Your task to perform on an android device: check data usage Image 0: 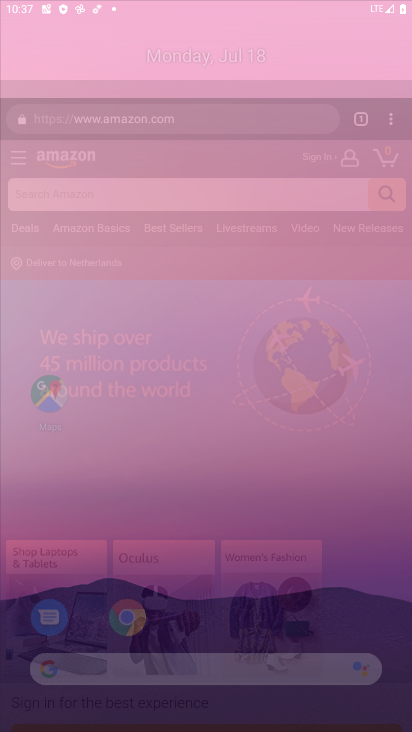
Step 0: click (349, 219)
Your task to perform on an android device: check data usage Image 1: 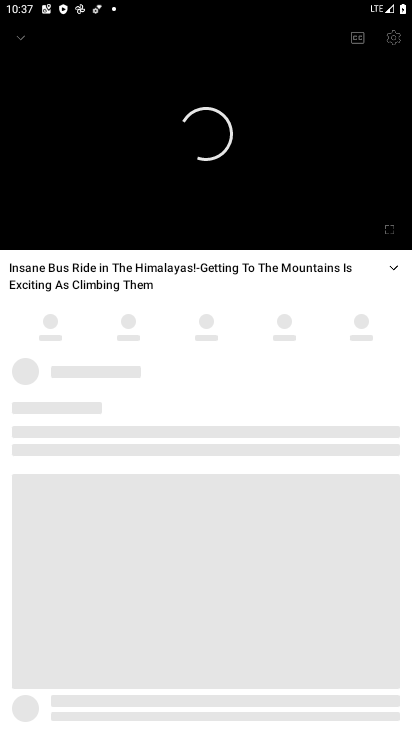
Step 1: press home button
Your task to perform on an android device: check data usage Image 2: 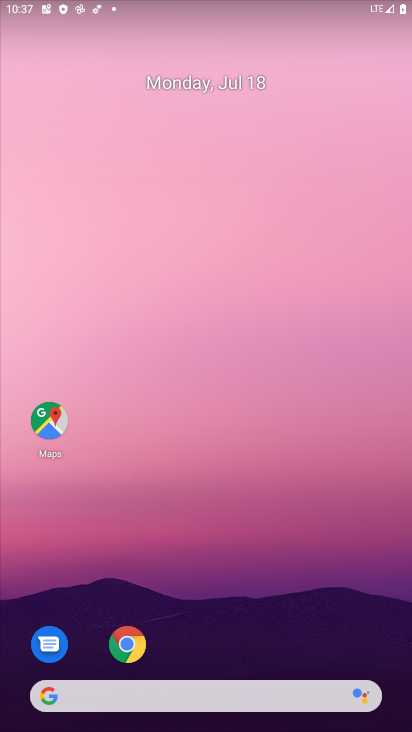
Step 2: drag from (336, 587) to (336, 100)
Your task to perform on an android device: check data usage Image 3: 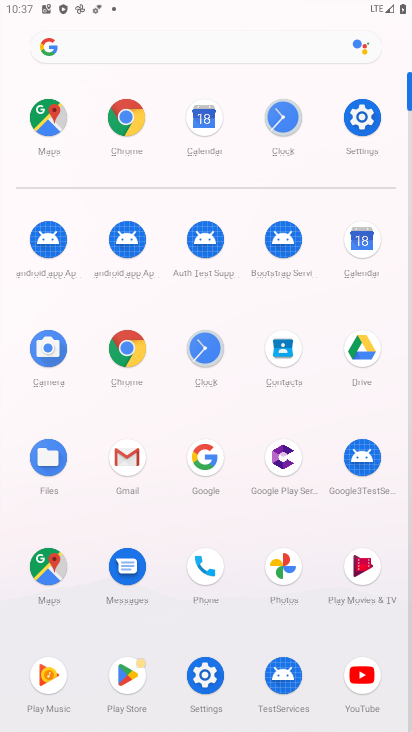
Step 3: click (369, 122)
Your task to perform on an android device: check data usage Image 4: 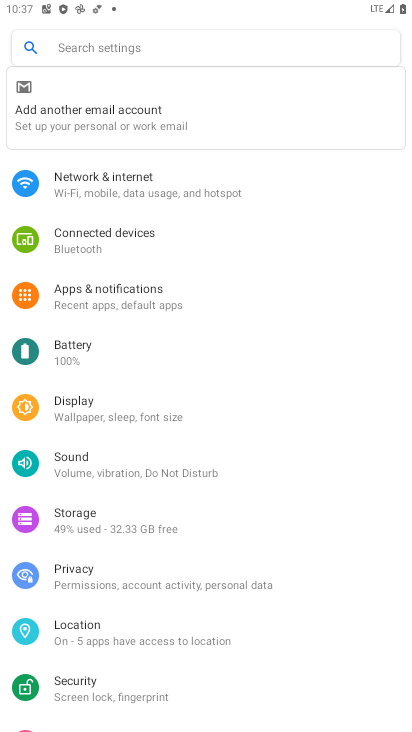
Step 4: drag from (329, 453) to (312, 332)
Your task to perform on an android device: check data usage Image 5: 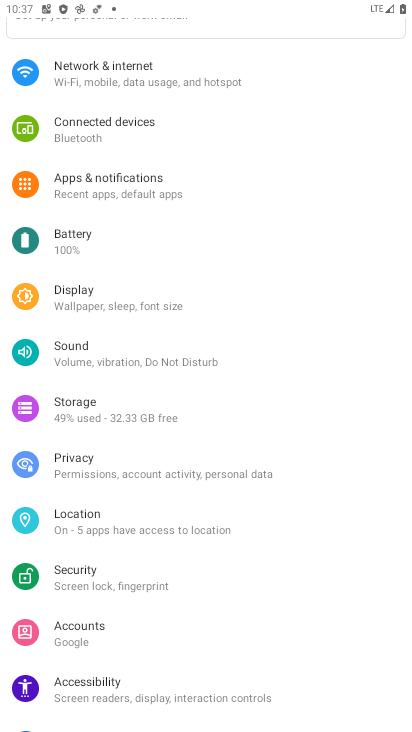
Step 5: drag from (292, 534) to (301, 454)
Your task to perform on an android device: check data usage Image 6: 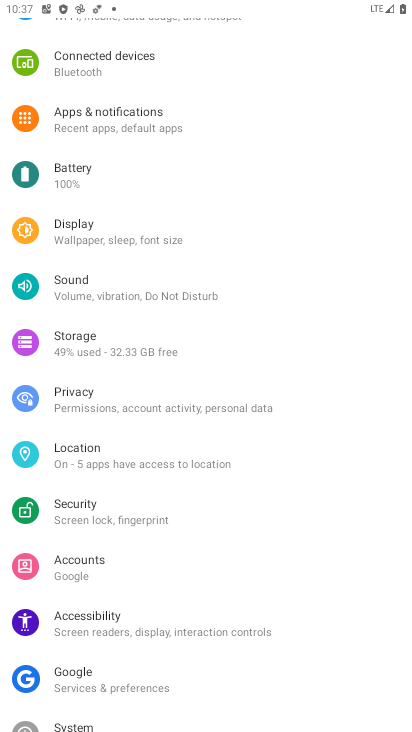
Step 6: drag from (302, 534) to (331, 397)
Your task to perform on an android device: check data usage Image 7: 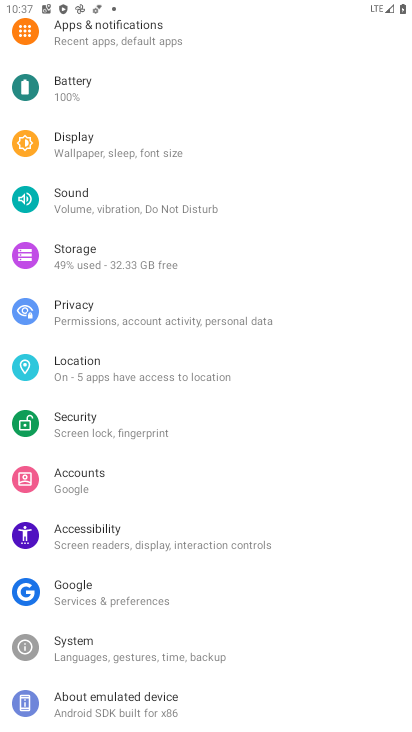
Step 7: drag from (336, 307) to (331, 414)
Your task to perform on an android device: check data usage Image 8: 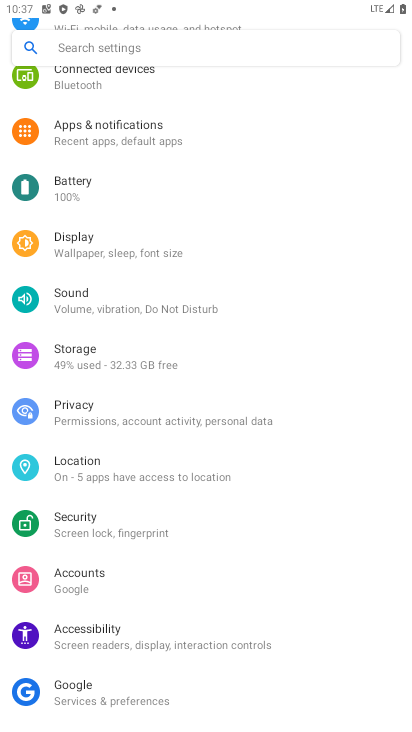
Step 8: drag from (320, 261) to (325, 398)
Your task to perform on an android device: check data usage Image 9: 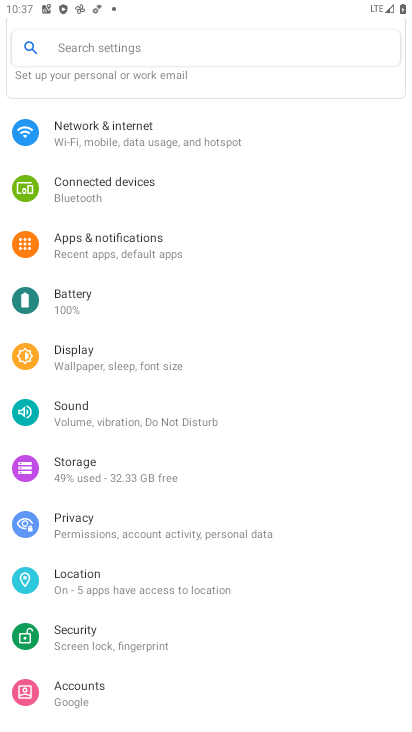
Step 9: drag from (315, 300) to (301, 494)
Your task to perform on an android device: check data usage Image 10: 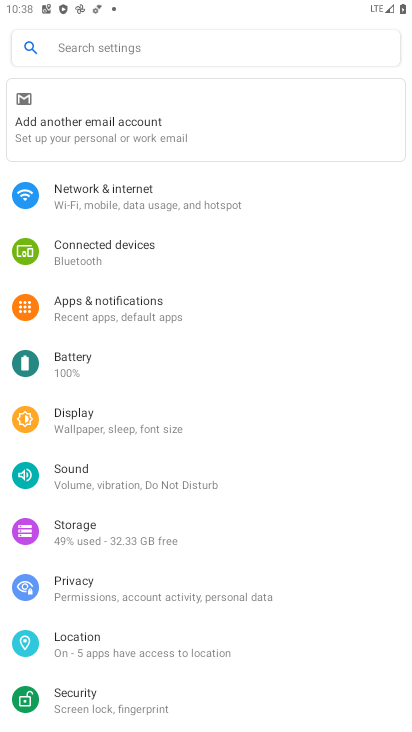
Step 10: click (150, 193)
Your task to perform on an android device: check data usage Image 11: 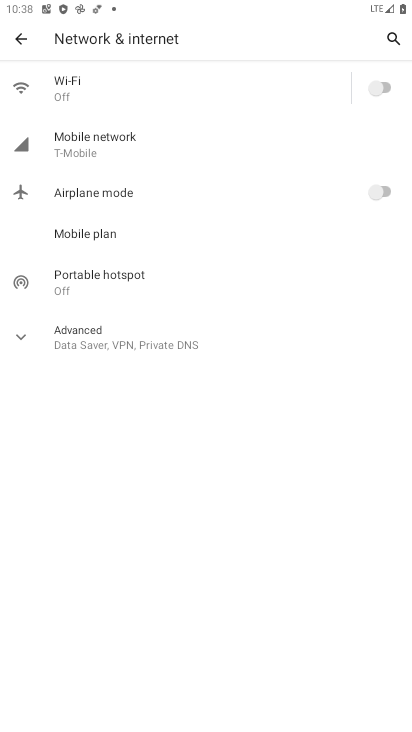
Step 11: click (92, 138)
Your task to perform on an android device: check data usage Image 12: 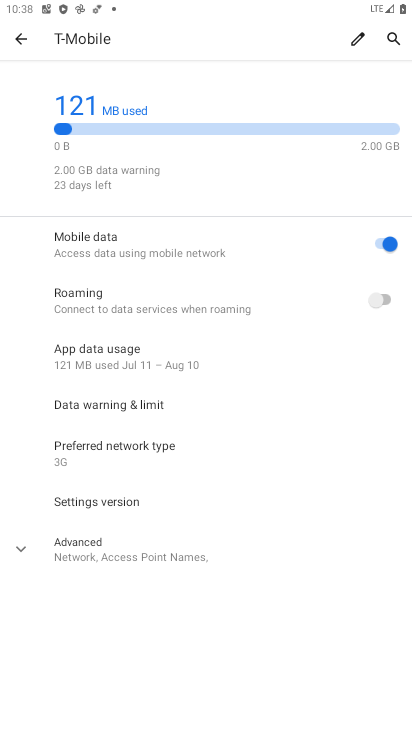
Step 12: drag from (235, 445) to (237, 344)
Your task to perform on an android device: check data usage Image 13: 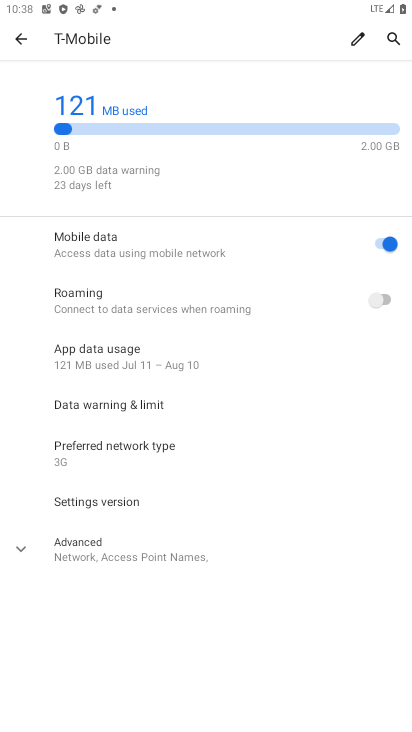
Step 13: click (138, 357)
Your task to perform on an android device: check data usage Image 14: 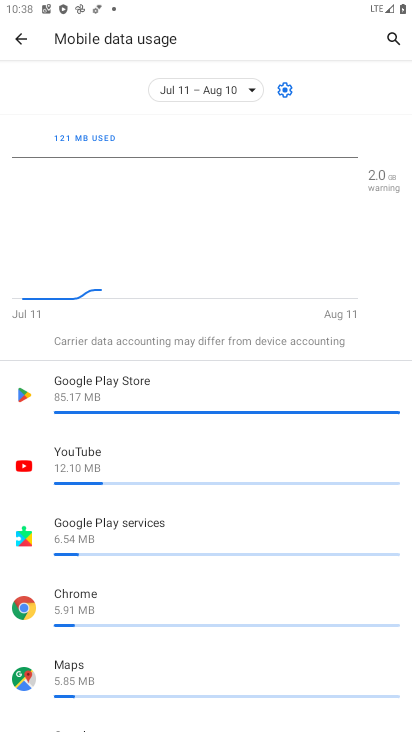
Step 14: task complete